Your task to perform on an android device: install app "The Home Depot" Image 0: 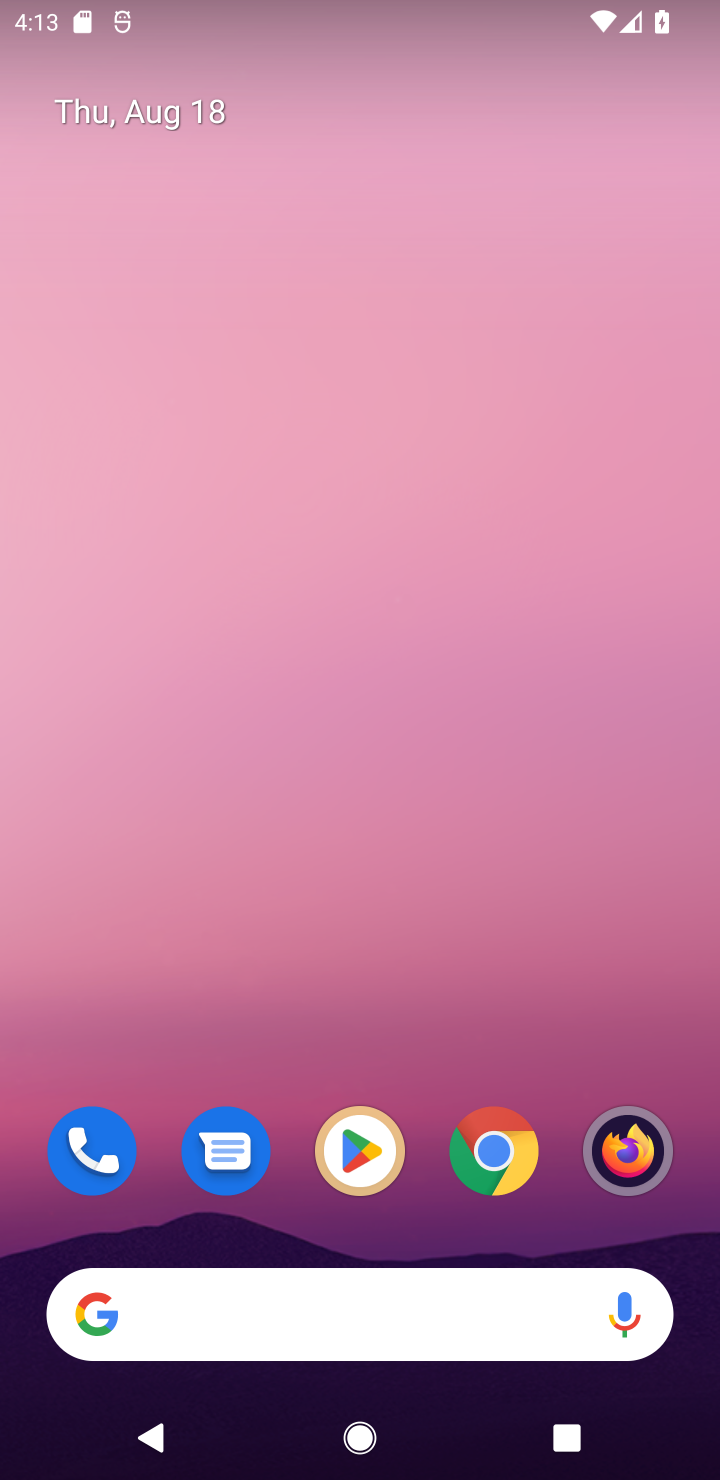
Step 0: click (376, 1197)
Your task to perform on an android device: install app "The Home Depot" Image 1: 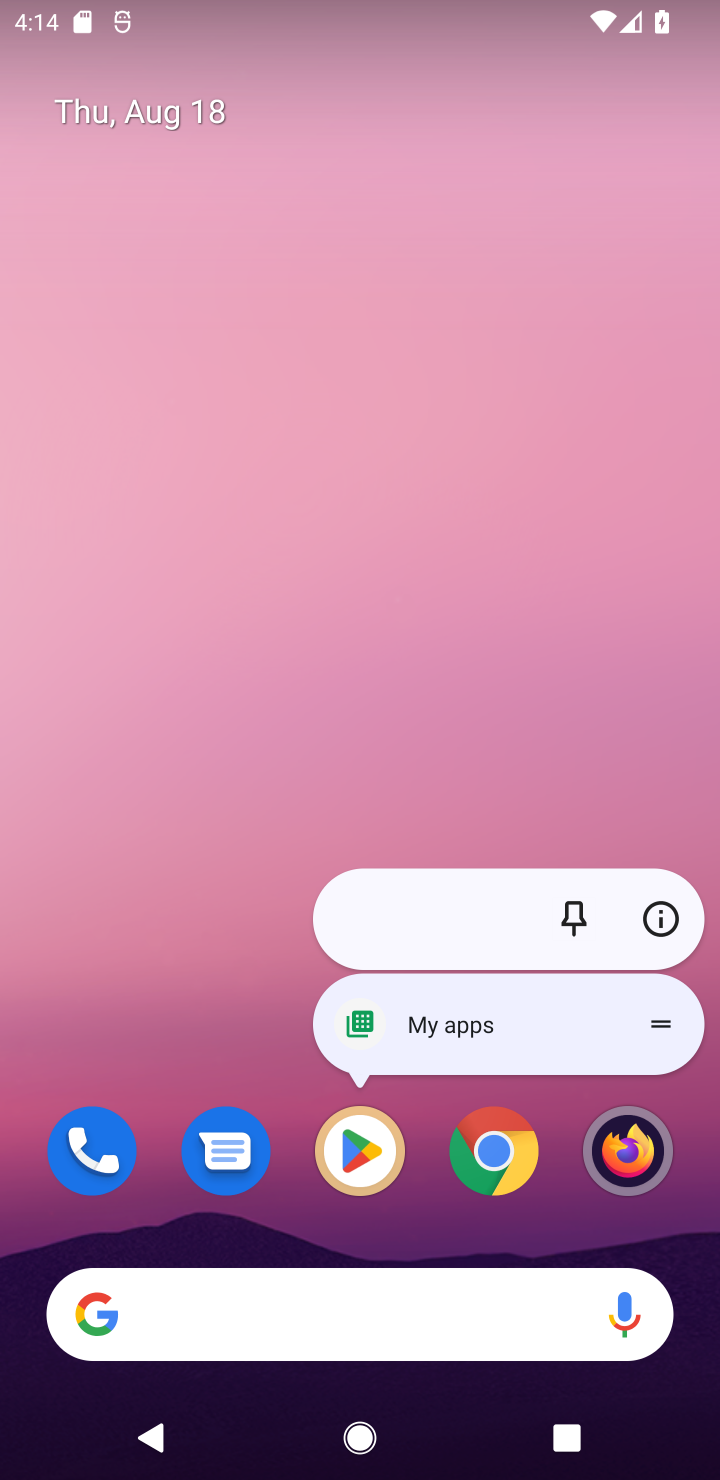
Step 1: click (376, 1197)
Your task to perform on an android device: install app "The Home Depot" Image 2: 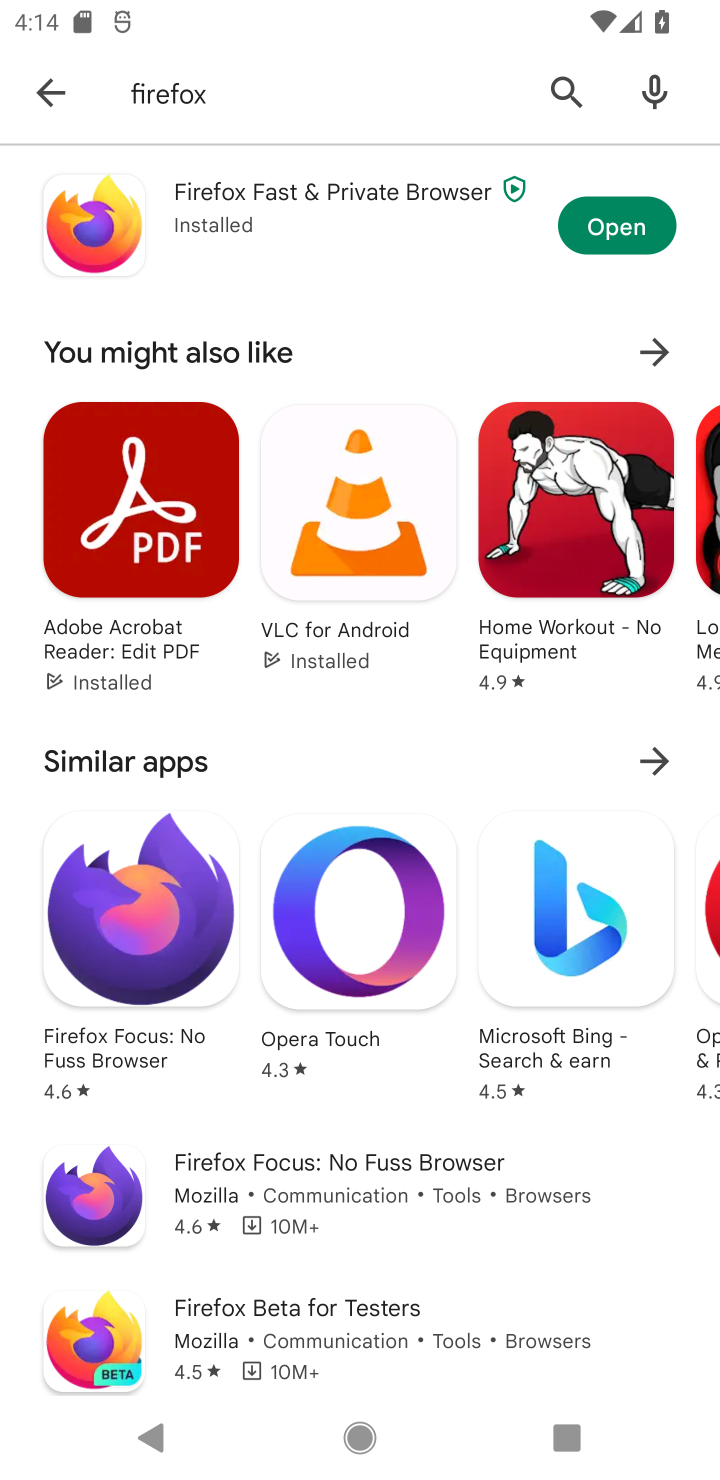
Step 2: click (557, 107)
Your task to perform on an android device: install app "The Home Depot" Image 3: 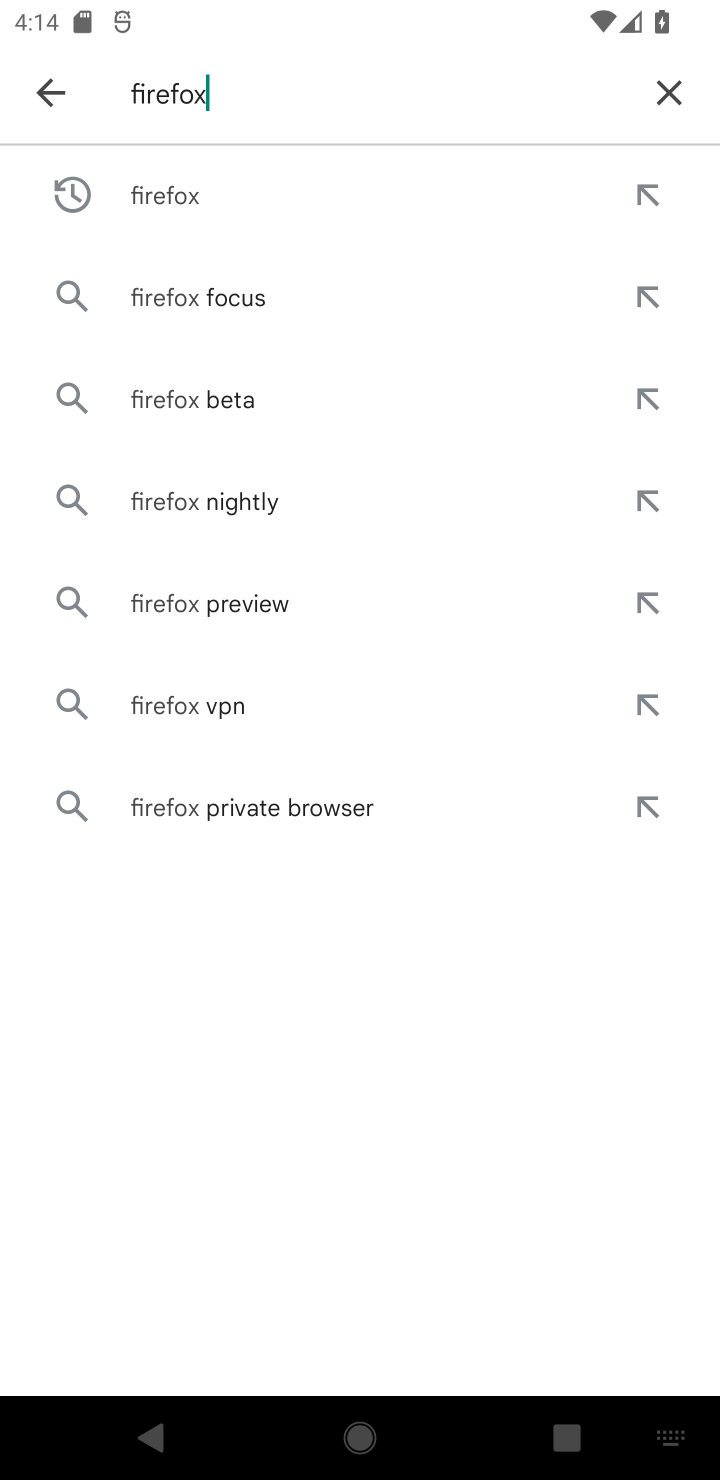
Step 3: click (638, 87)
Your task to perform on an android device: install app "The Home Depot" Image 4: 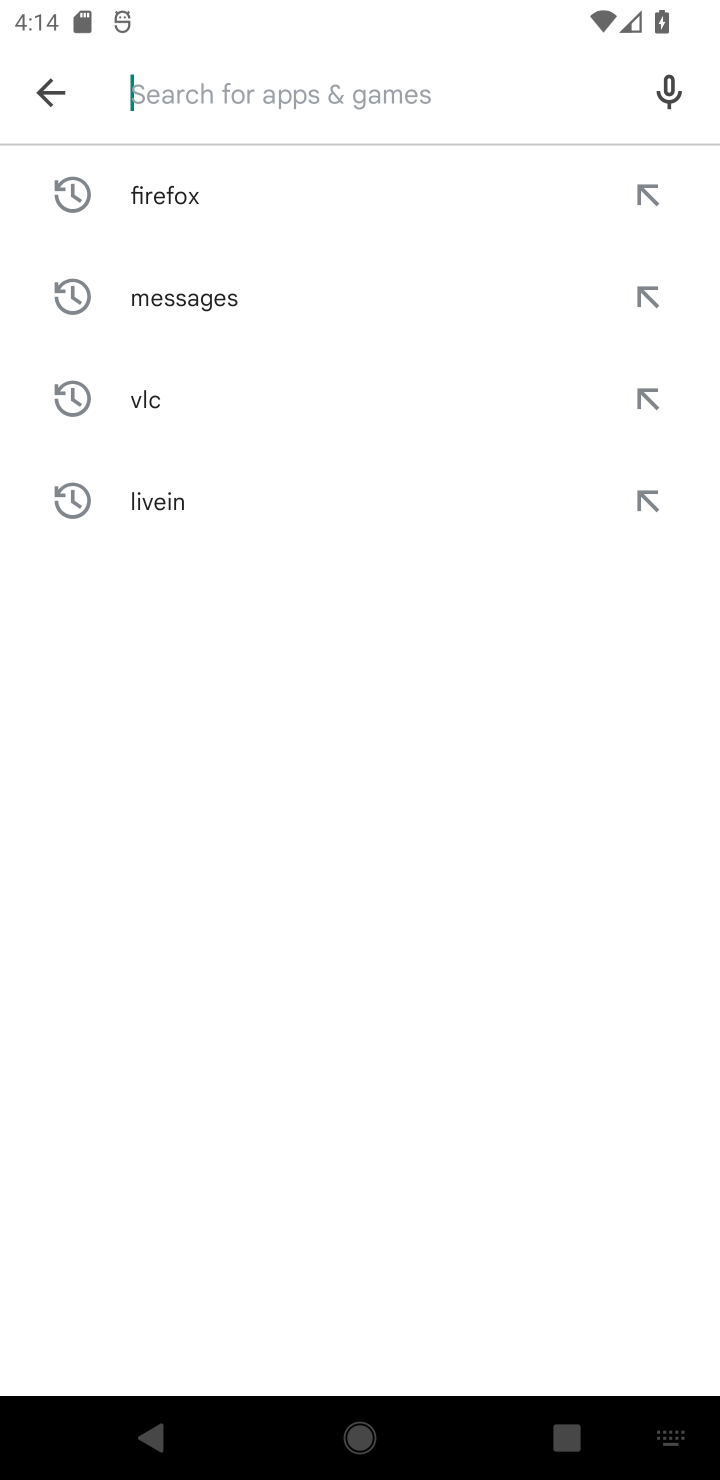
Step 4: type "HOME DEPOT"
Your task to perform on an android device: install app "The Home Depot" Image 5: 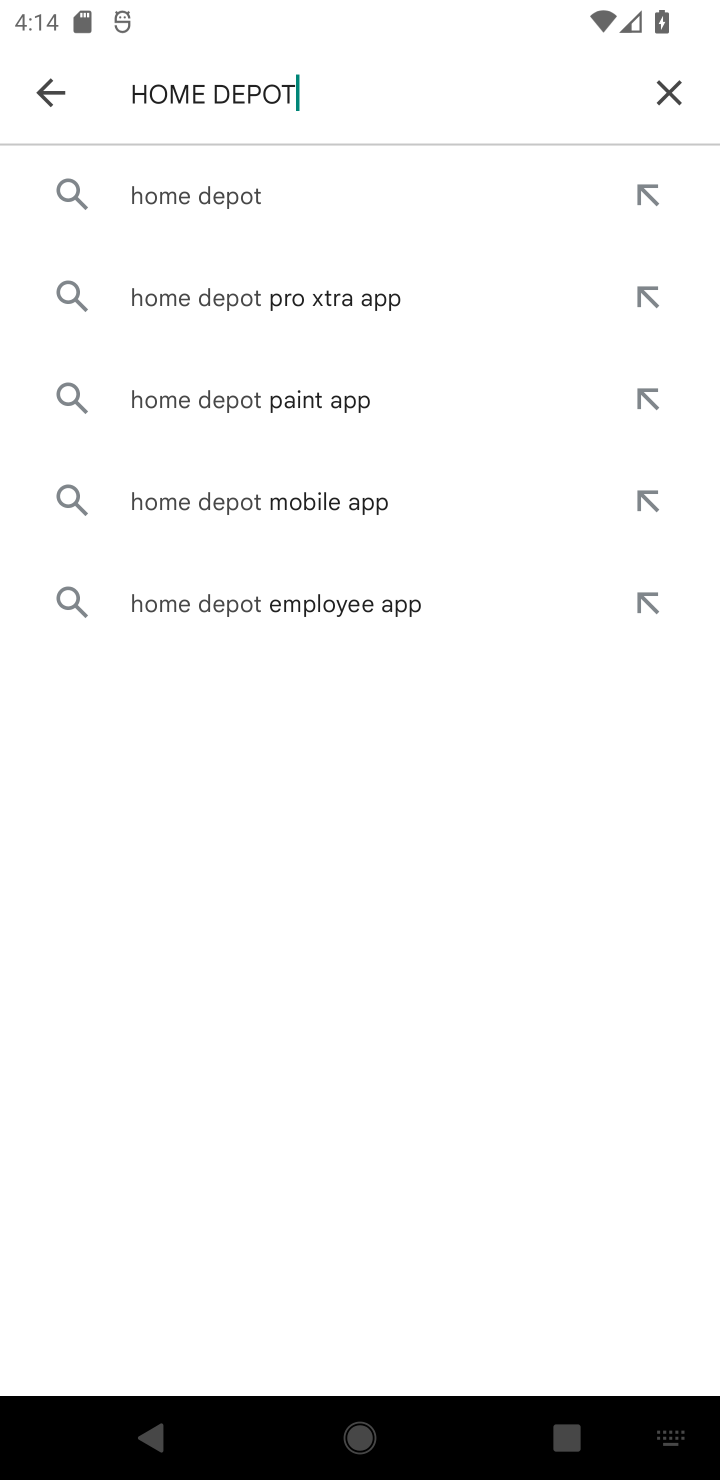
Step 5: click (360, 188)
Your task to perform on an android device: install app "The Home Depot" Image 6: 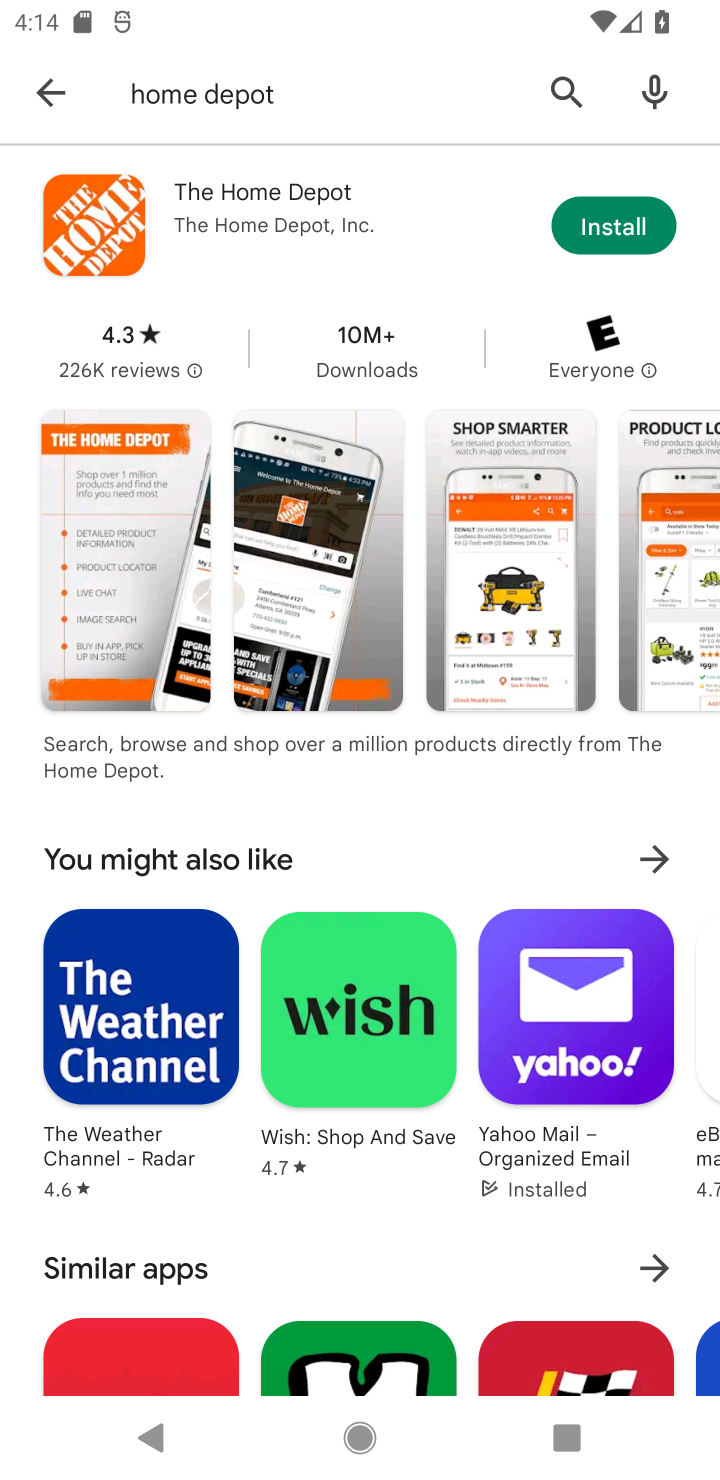
Step 6: click (601, 235)
Your task to perform on an android device: install app "The Home Depot" Image 7: 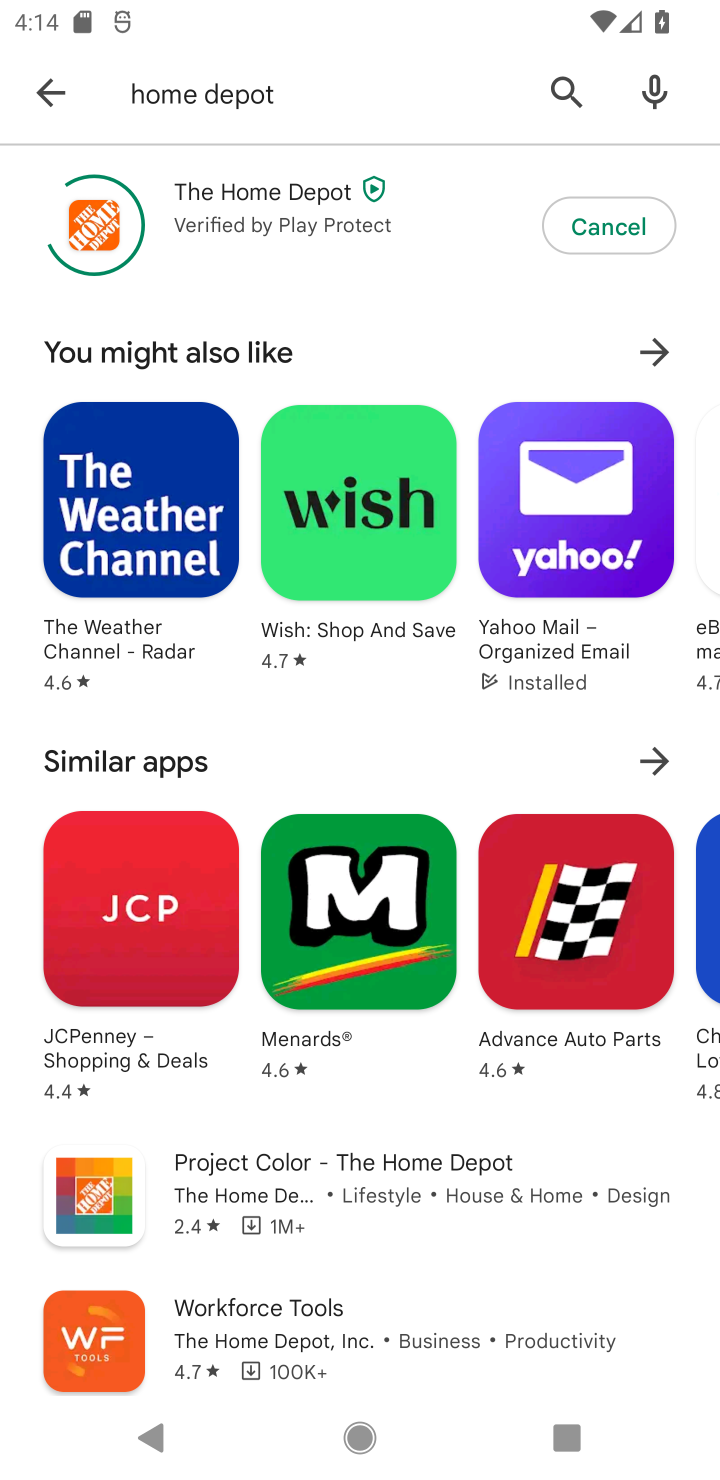
Step 7: task complete